Your task to perform on an android device: find photos in the google photos app Image 0: 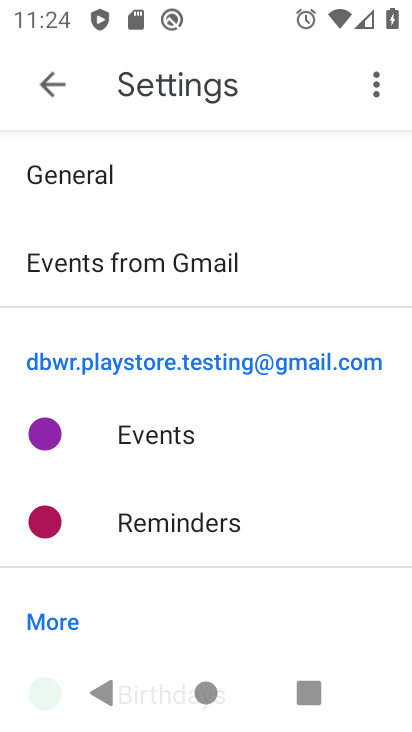
Step 0: press home button
Your task to perform on an android device: find photos in the google photos app Image 1: 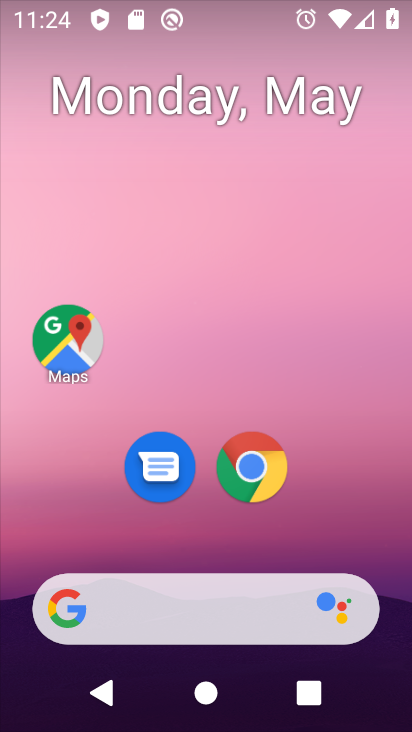
Step 1: drag from (370, 488) to (329, 44)
Your task to perform on an android device: find photos in the google photos app Image 2: 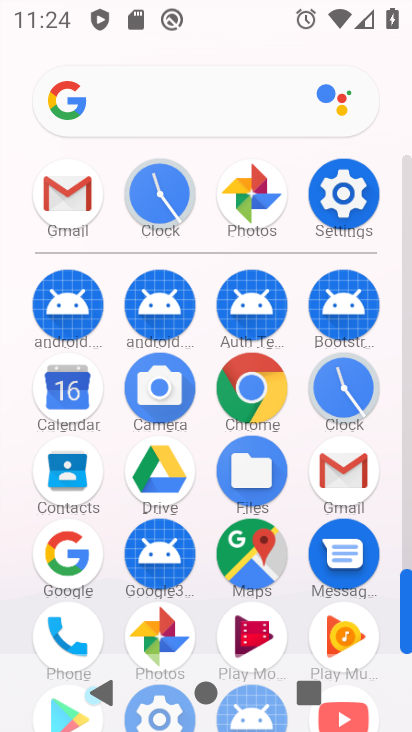
Step 2: click (266, 214)
Your task to perform on an android device: find photos in the google photos app Image 3: 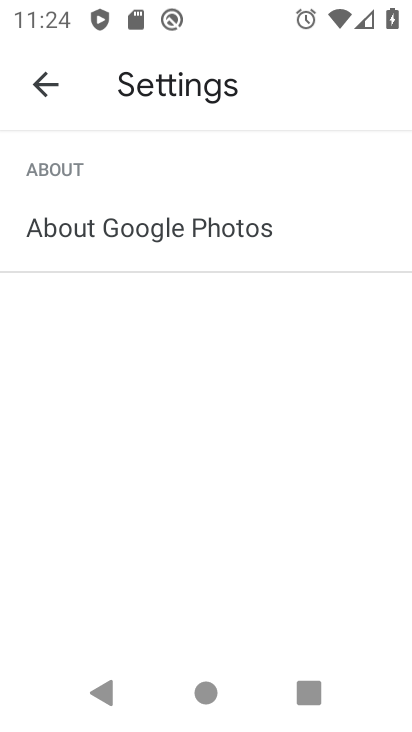
Step 3: click (48, 96)
Your task to perform on an android device: find photos in the google photos app Image 4: 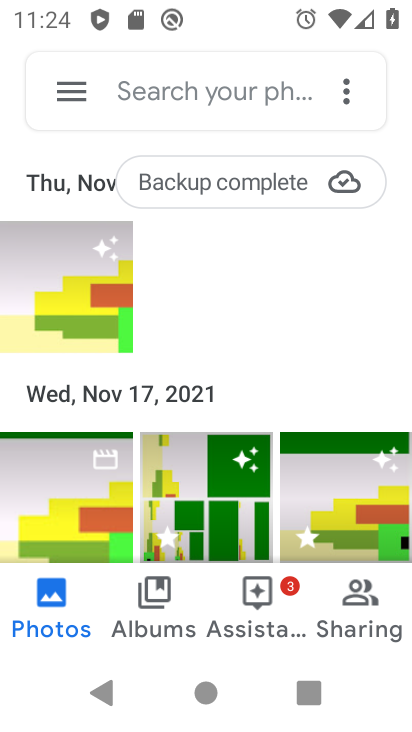
Step 4: click (83, 96)
Your task to perform on an android device: find photos in the google photos app Image 5: 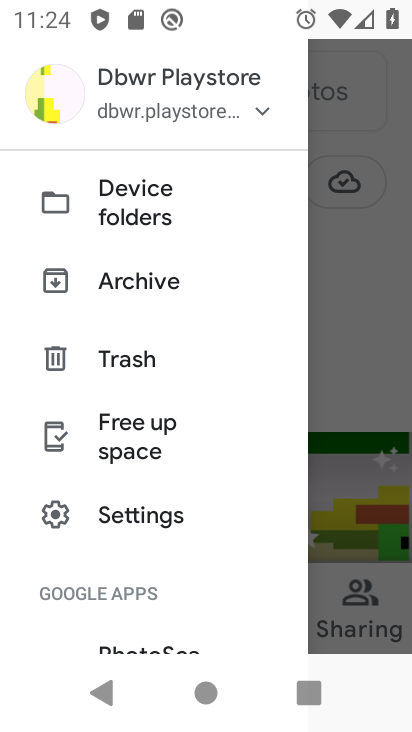
Step 5: click (100, 269)
Your task to perform on an android device: find photos in the google photos app Image 6: 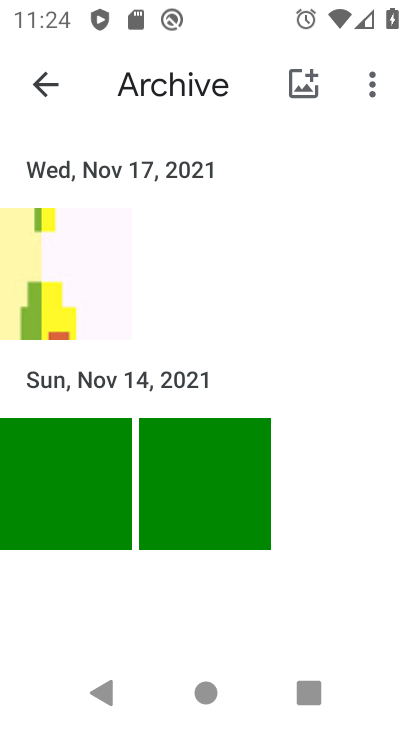
Step 6: task complete